Your task to perform on an android device: create a new album in the google photos Image 0: 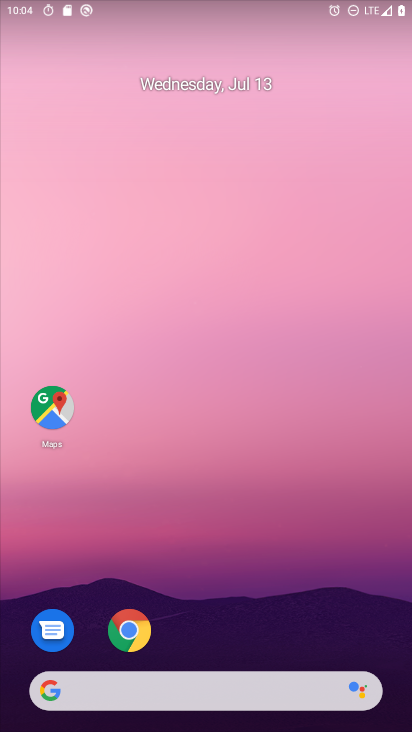
Step 0: drag from (325, 633) to (198, 7)
Your task to perform on an android device: create a new album in the google photos Image 1: 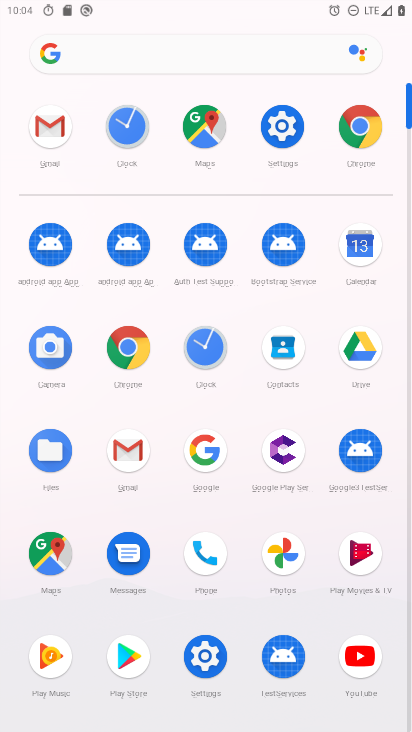
Step 1: click (284, 546)
Your task to perform on an android device: create a new album in the google photos Image 2: 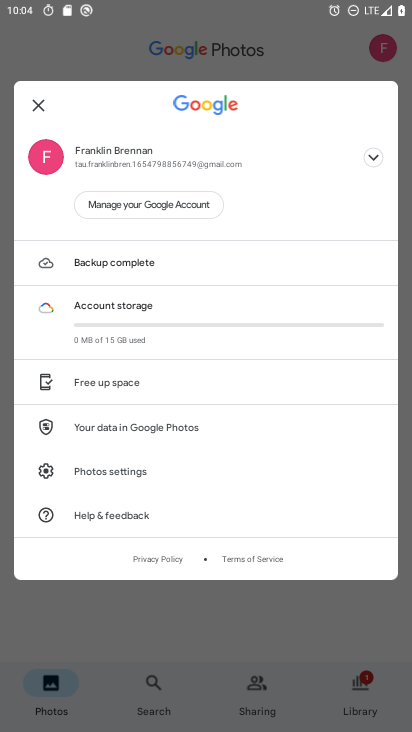
Step 2: task complete